Your task to perform on an android device: Open sound settings Image 0: 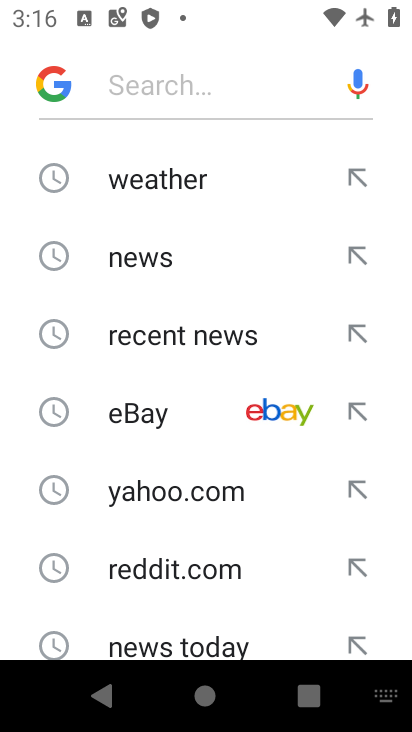
Step 0: press home button
Your task to perform on an android device: Open sound settings Image 1: 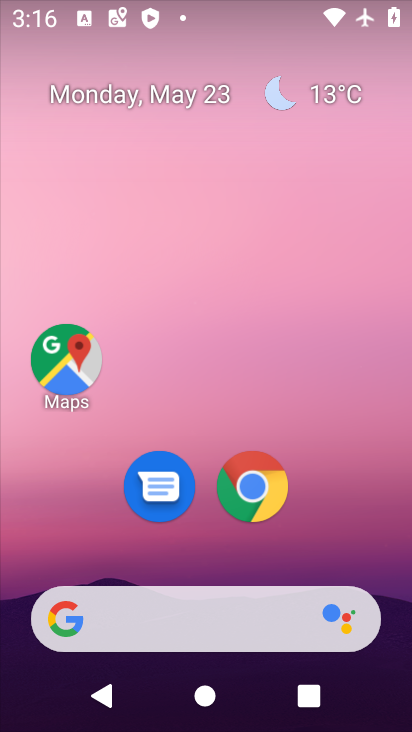
Step 1: drag from (403, 619) to (357, 89)
Your task to perform on an android device: Open sound settings Image 2: 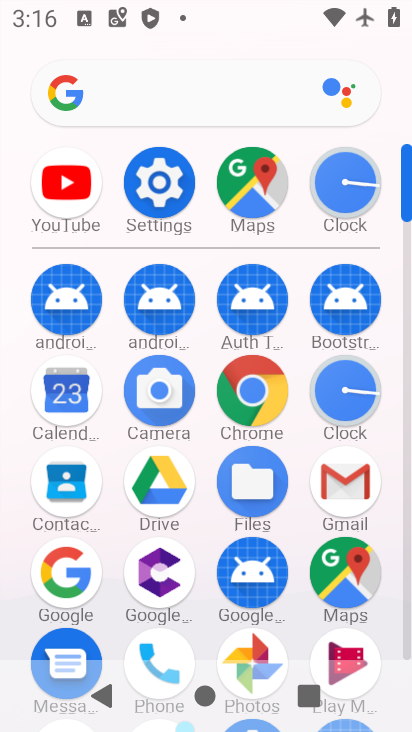
Step 2: click (407, 644)
Your task to perform on an android device: Open sound settings Image 3: 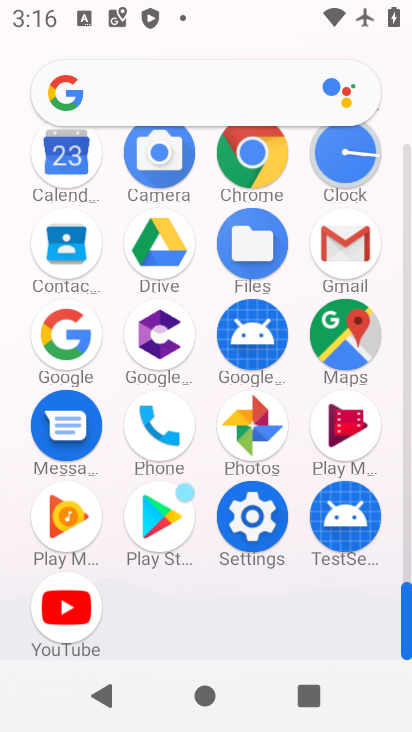
Step 3: click (248, 512)
Your task to perform on an android device: Open sound settings Image 4: 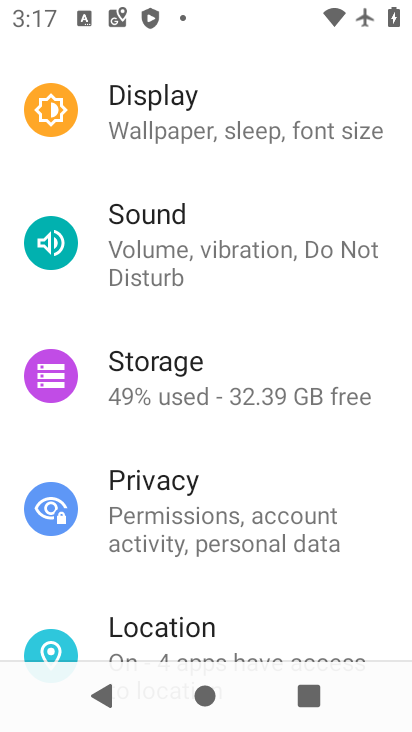
Step 4: click (152, 218)
Your task to perform on an android device: Open sound settings Image 5: 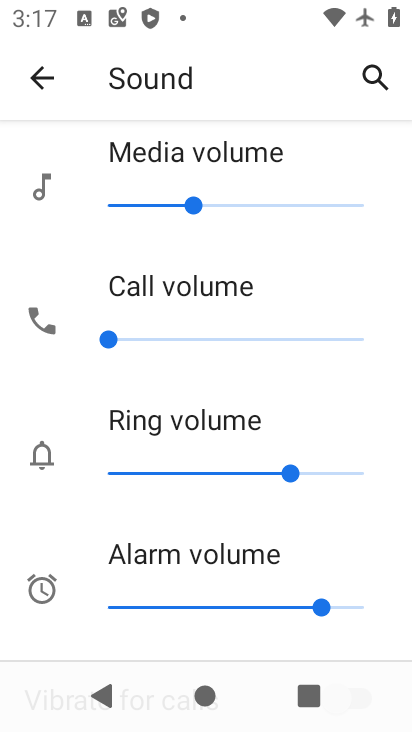
Step 5: drag from (249, 512) to (250, 334)
Your task to perform on an android device: Open sound settings Image 6: 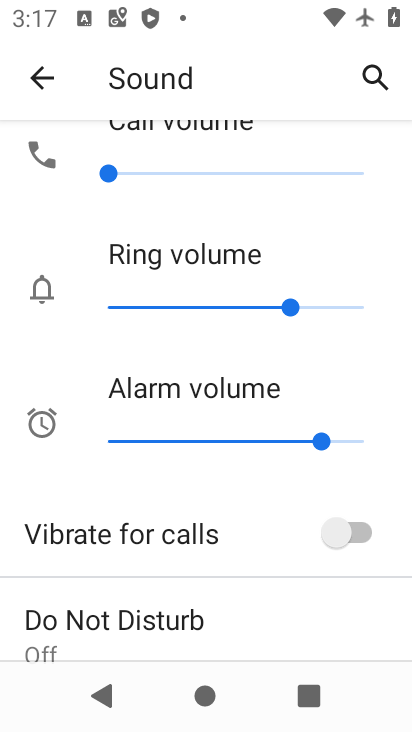
Step 6: drag from (196, 528) to (241, 205)
Your task to perform on an android device: Open sound settings Image 7: 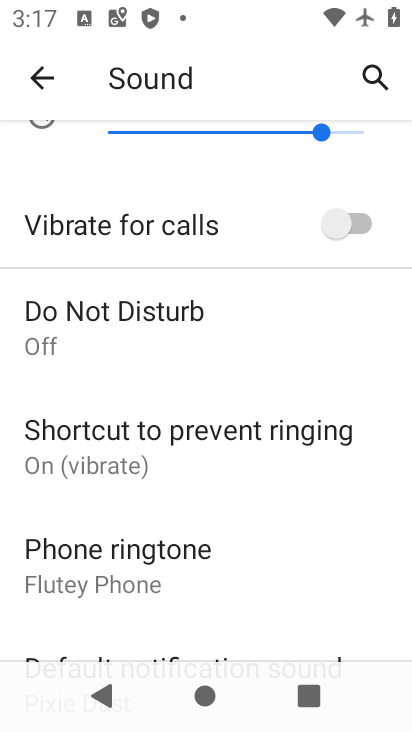
Step 7: drag from (211, 606) to (221, 331)
Your task to perform on an android device: Open sound settings Image 8: 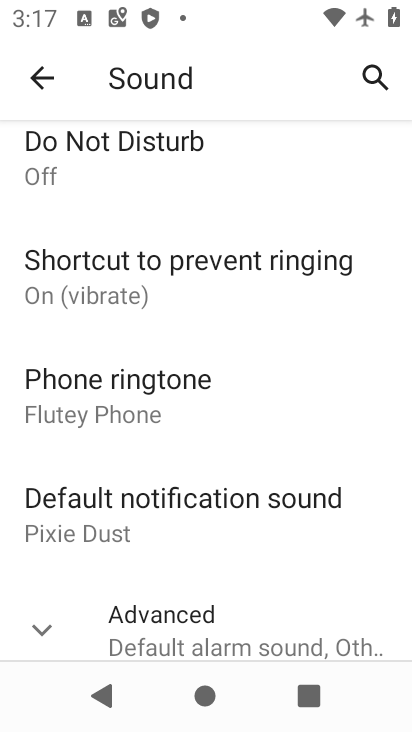
Step 8: drag from (221, 560) to (269, 197)
Your task to perform on an android device: Open sound settings Image 9: 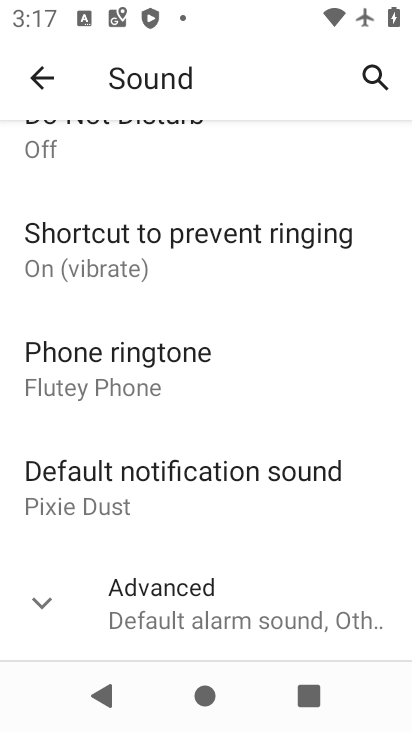
Step 9: click (39, 608)
Your task to perform on an android device: Open sound settings Image 10: 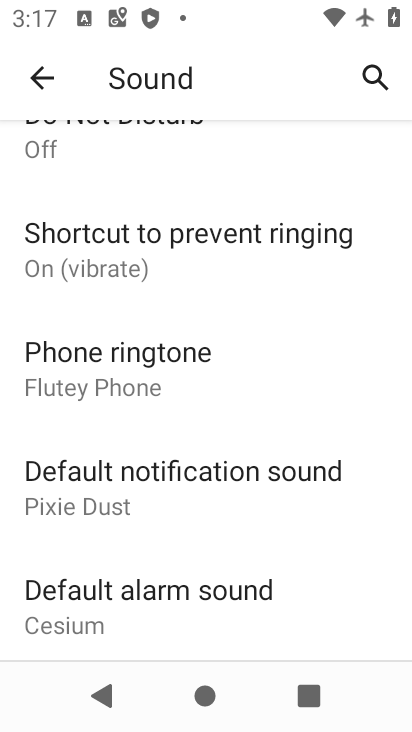
Step 10: task complete